Your task to perform on an android device: Turn on the flashlight Image 0: 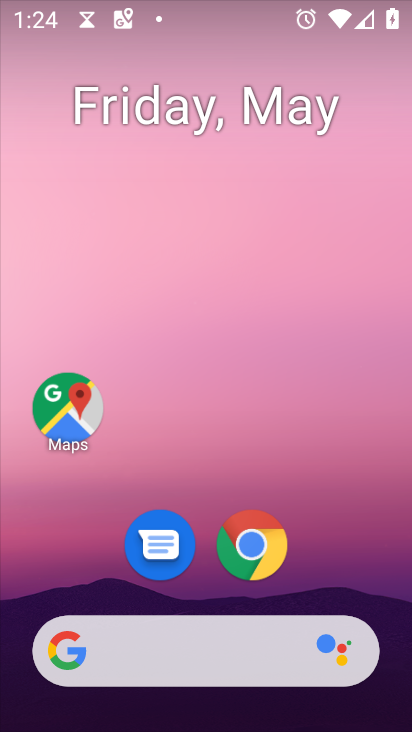
Step 0: drag from (338, 563) to (299, 264)
Your task to perform on an android device: Turn on the flashlight Image 1: 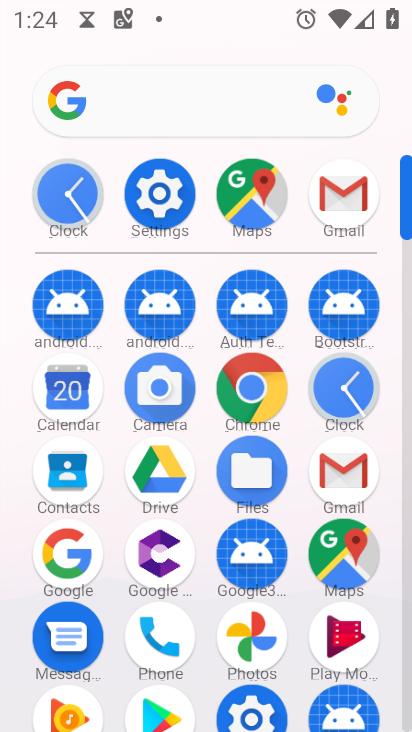
Step 1: click (157, 191)
Your task to perform on an android device: Turn on the flashlight Image 2: 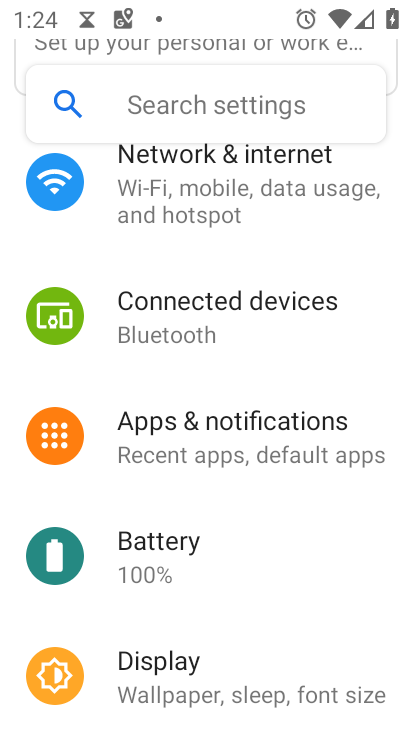
Step 2: click (274, 454)
Your task to perform on an android device: Turn on the flashlight Image 3: 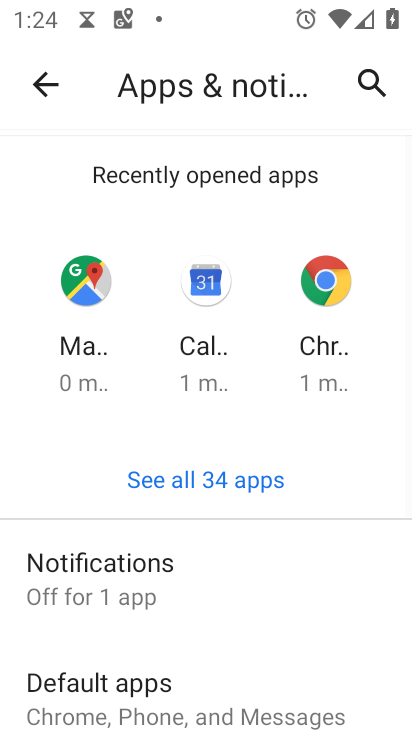
Step 3: drag from (271, 610) to (242, 141)
Your task to perform on an android device: Turn on the flashlight Image 4: 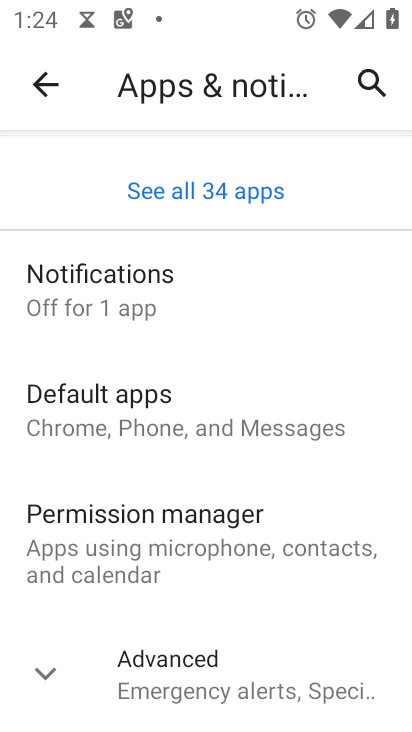
Step 4: click (209, 690)
Your task to perform on an android device: Turn on the flashlight Image 5: 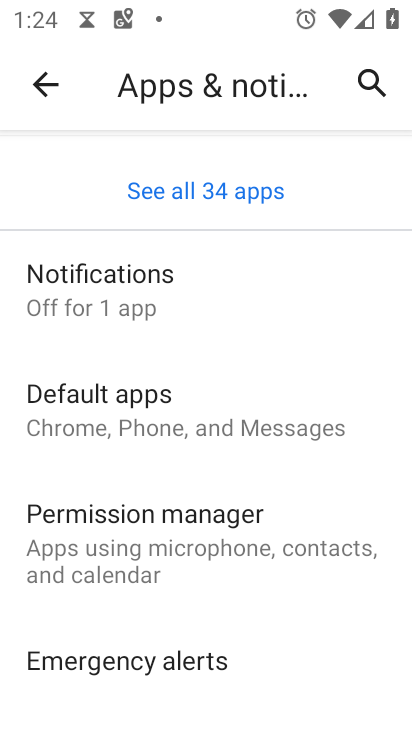
Step 5: drag from (237, 595) to (243, 224)
Your task to perform on an android device: Turn on the flashlight Image 6: 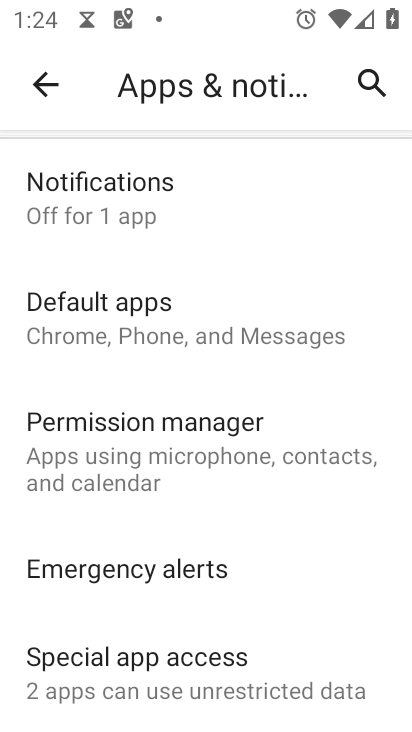
Step 6: click (197, 667)
Your task to perform on an android device: Turn on the flashlight Image 7: 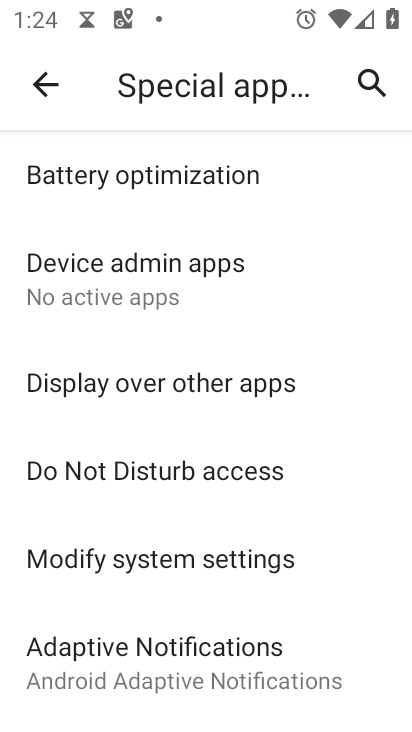
Step 7: task complete